Your task to perform on an android device: Search for vegetarian restaurants on Maps Image 0: 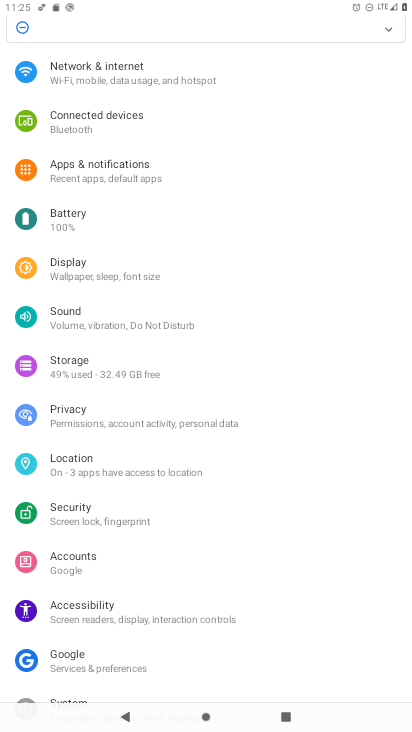
Step 0: press home button
Your task to perform on an android device: Search for vegetarian restaurants on Maps Image 1: 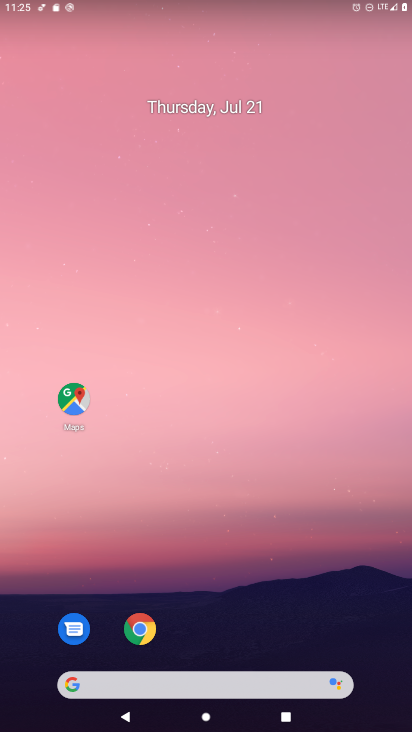
Step 1: drag from (302, 607) to (202, 186)
Your task to perform on an android device: Search for vegetarian restaurants on Maps Image 2: 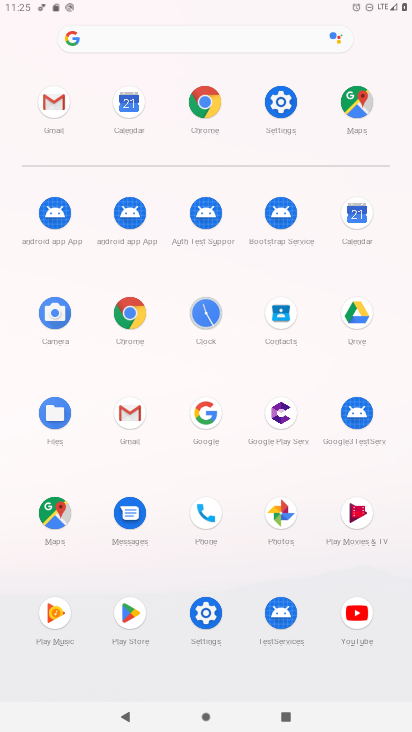
Step 2: click (54, 555)
Your task to perform on an android device: Search for vegetarian restaurants on Maps Image 3: 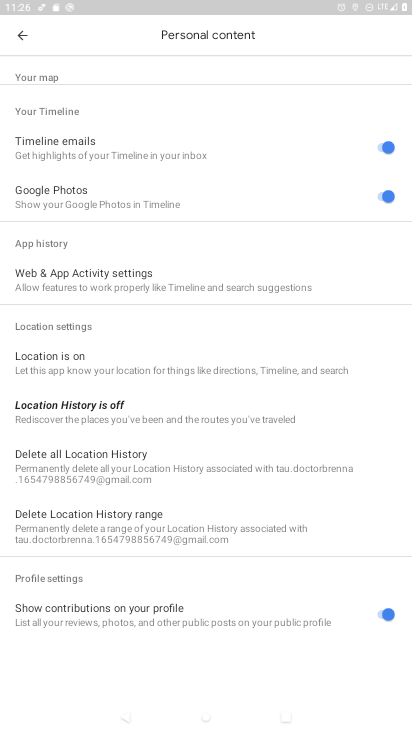
Step 3: click (13, 25)
Your task to perform on an android device: Search for vegetarian restaurants on Maps Image 4: 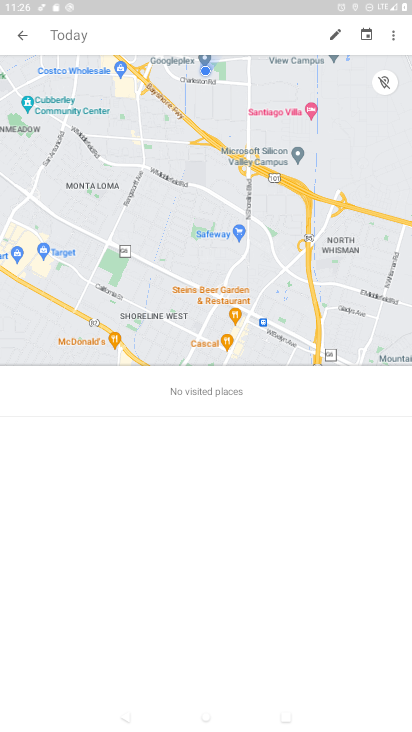
Step 4: click (28, 42)
Your task to perform on an android device: Search for vegetarian restaurants on Maps Image 5: 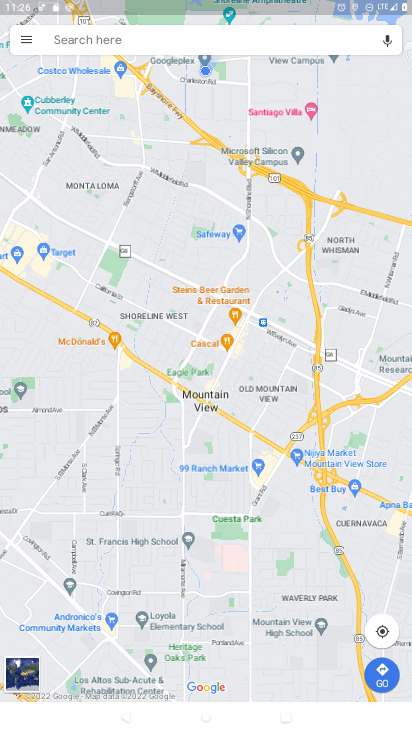
Step 5: click (124, 39)
Your task to perform on an android device: Search for vegetarian restaurants on Maps Image 6: 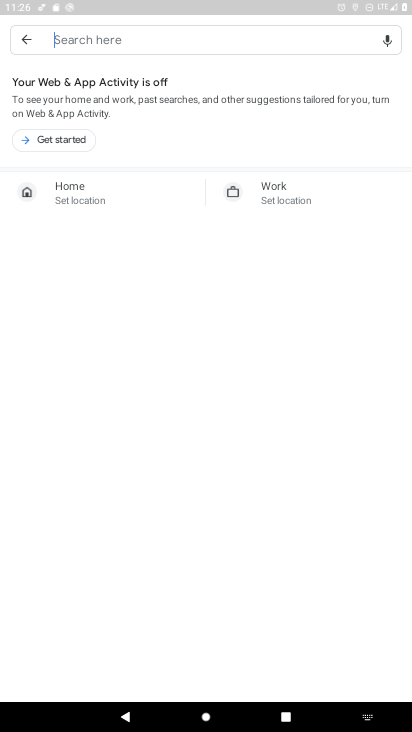
Step 6: type " vegetarian restaurants"
Your task to perform on an android device: Search for vegetarian restaurants on Maps Image 7: 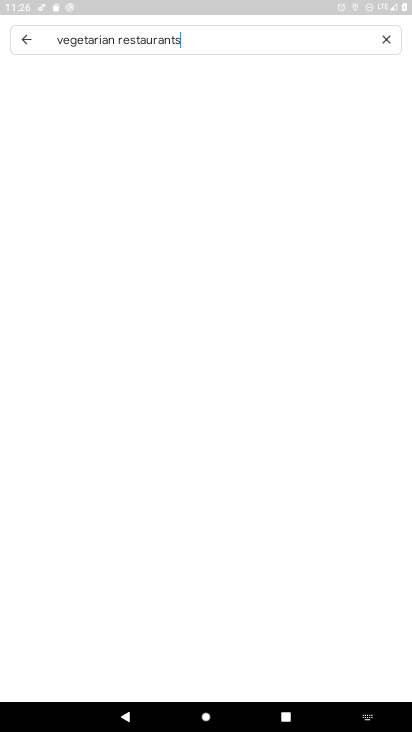
Step 7: type ""
Your task to perform on an android device: Search for vegetarian restaurants on Maps Image 8: 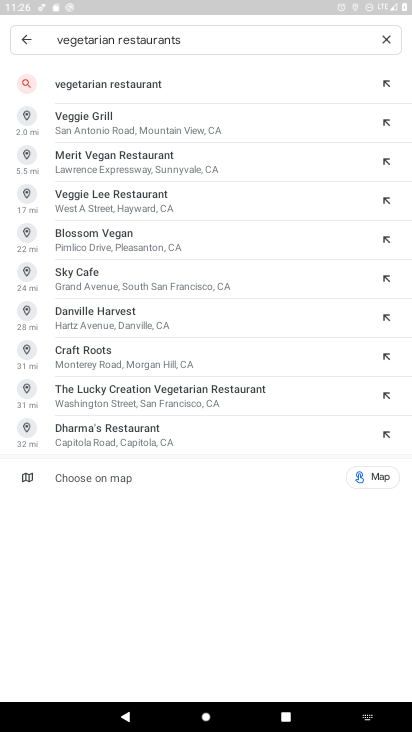
Step 8: click (112, 77)
Your task to perform on an android device: Search for vegetarian restaurants on Maps Image 9: 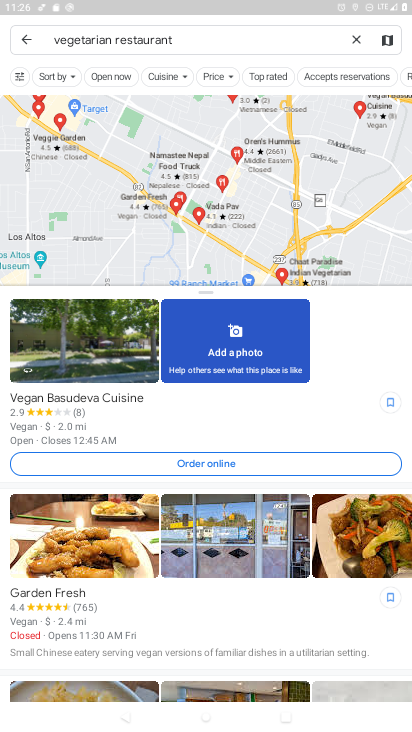
Step 9: task complete